Your task to perform on an android device: Go to accessibility settings Image 0: 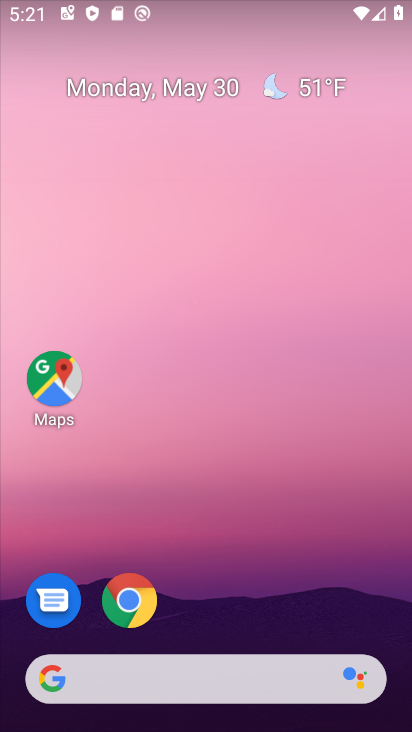
Step 0: drag from (223, 398) to (189, 65)
Your task to perform on an android device: Go to accessibility settings Image 1: 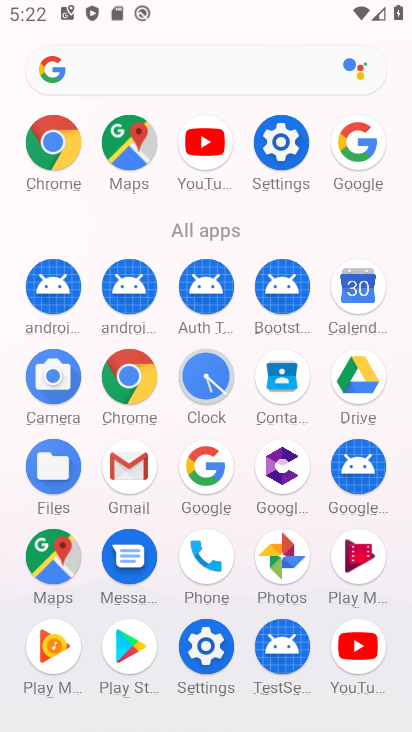
Step 1: click (273, 129)
Your task to perform on an android device: Go to accessibility settings Image 2: 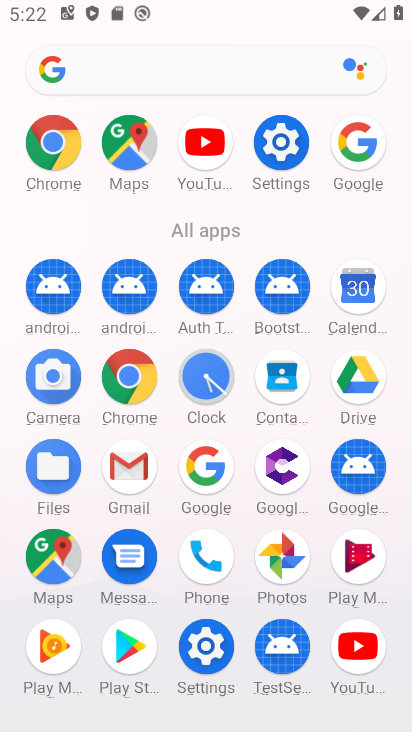
Step 2: click (274, 129)
Your task to perform on an android device: Go to accessibility settings Image 3: 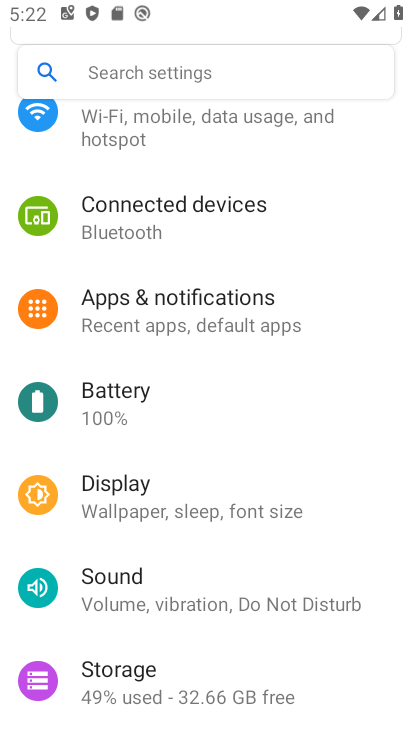
Step 3: drag from (168, 576) to (111, 81)
Your task to perform on an android device: Go to accessibility settings Image 4: 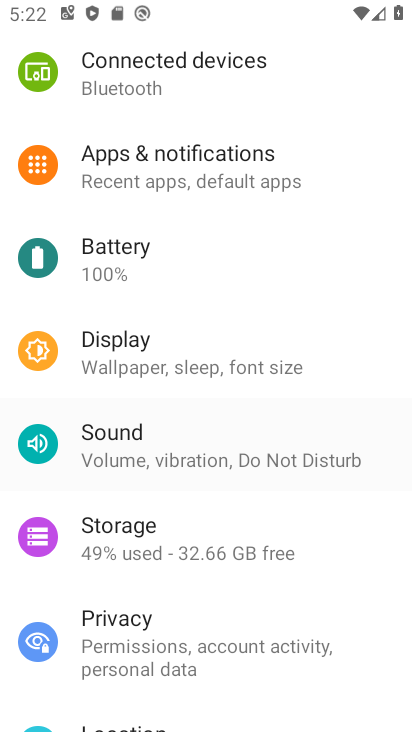
Step 4: drag from (217, 114) to (221, 41)
Your task to perform on an android device: Go to accessibility settings Image 5: 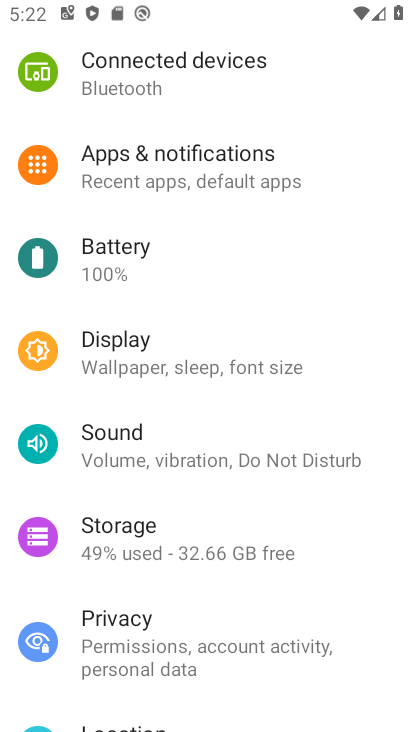
Step 5: drag from (243, 441) to (173, 97)
Your task to perform on an android device: Go to accessibility settings Image 6: 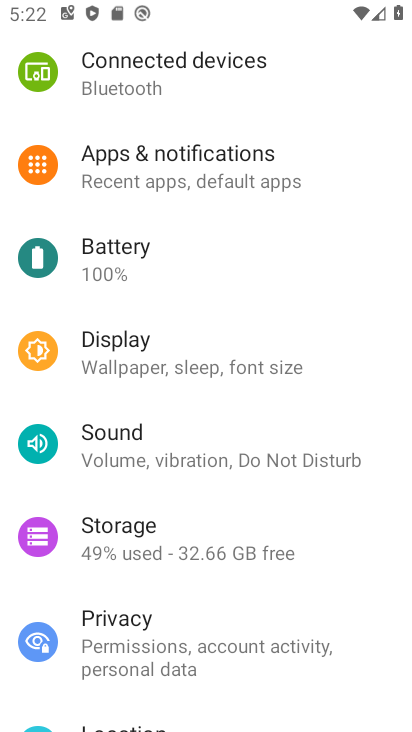
Step 6: drag from (194, 353) to (90, 60)
Your task to perform on an android device: Go to accessibility settings Image 7: 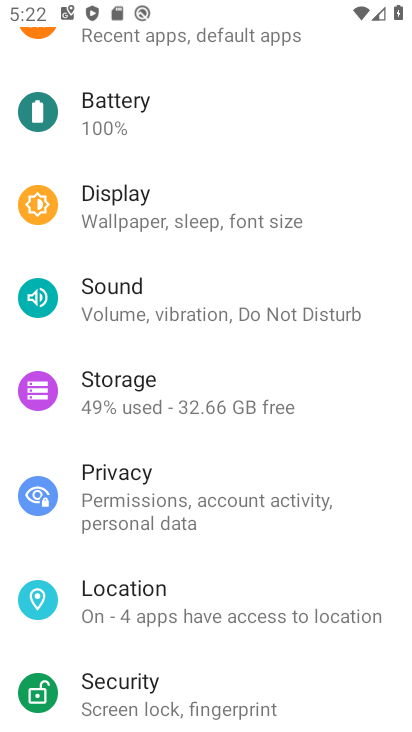
Step 7: drag from (185, 477) to (91, 138)
Your task to perform on an android device: Go to accessibility settings Image 8: 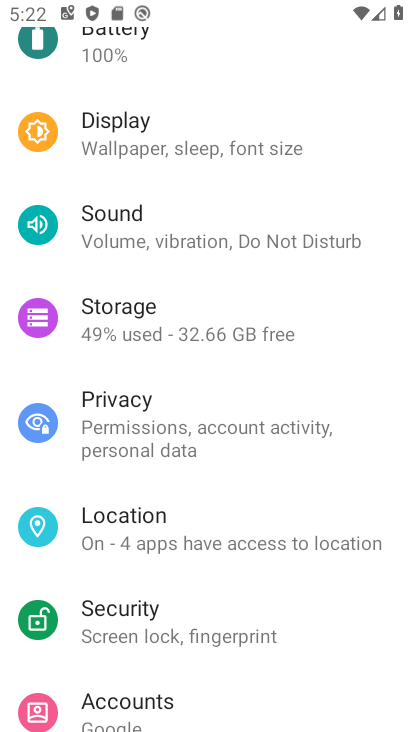
Step 8: drag from (226, 435) to (152, 49)
Your task to perform on an android device: Go to accessibility settings Image 9: 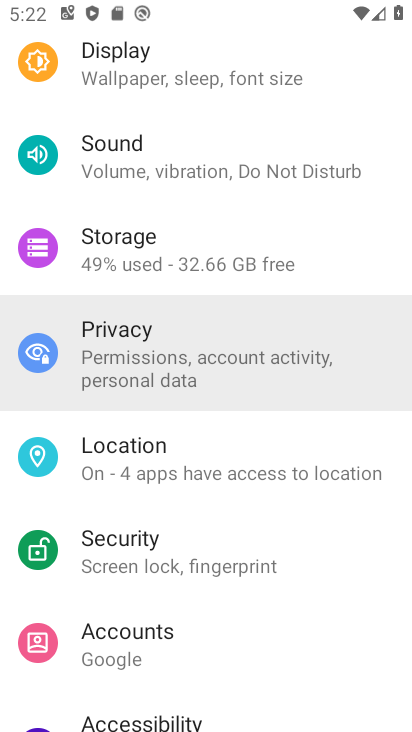
Step 9: drag from (149, 504) to (124, 123)
Your task to perform on an android device: Go to accessibility settings Image 10: 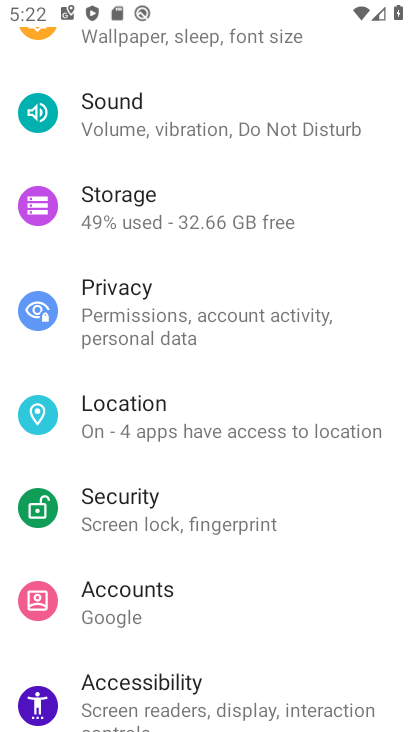
Step 10: drag from (152, 300) to (152, 89)
Your task to perform on an android device: Go to accessibility settings Image 11: 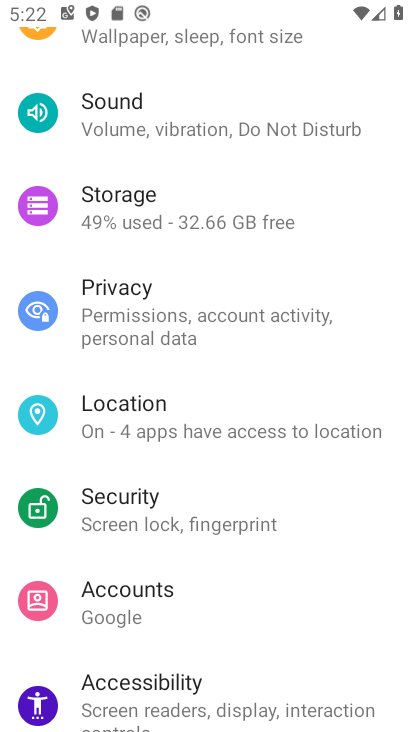
Step 11: click (182, 234)
Your task to perform on an android device: Go to accessibility settings Image 12: 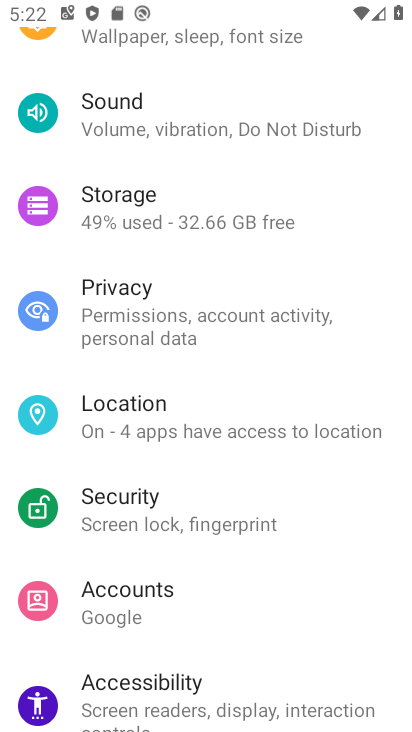
Step 12: drag from (166, 483) to (154, 175)
Your task to perform on an android device: Go to accessibility settings Image 13: 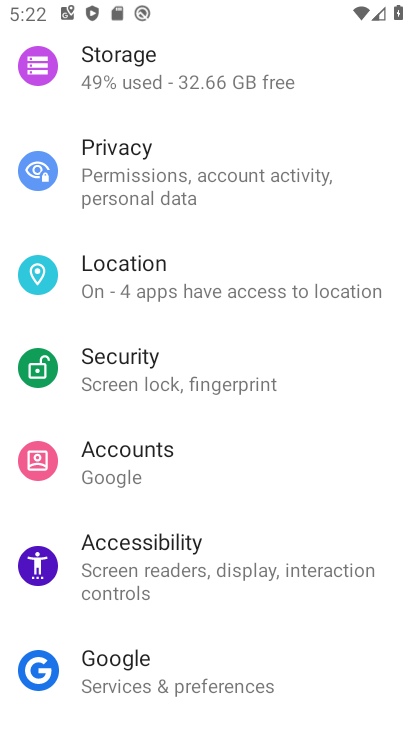
Step 13: click (153, 683)
Your task to perform on an android device: Go to accessibility settings Image 14: 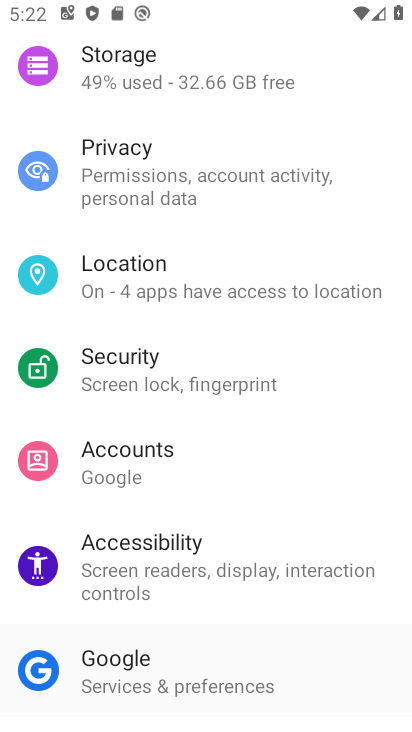
Step 14: click (127, 564)
Your task to perform on an android device: Go to accessibility settings Image 15: 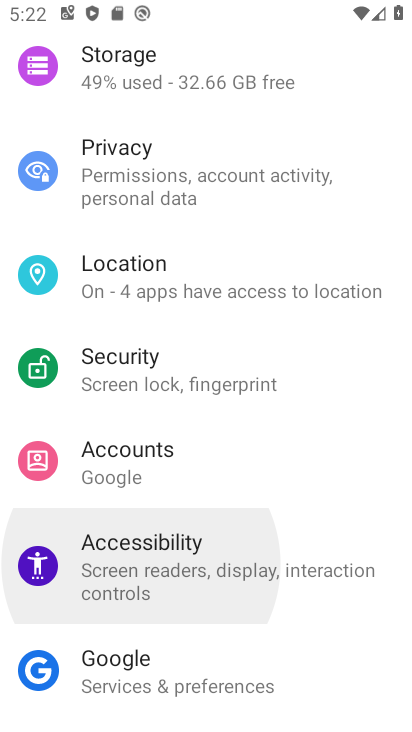
Step 15: click (126, 564)
Your task to perform on an android device: Go to accessibility settings Image 16: 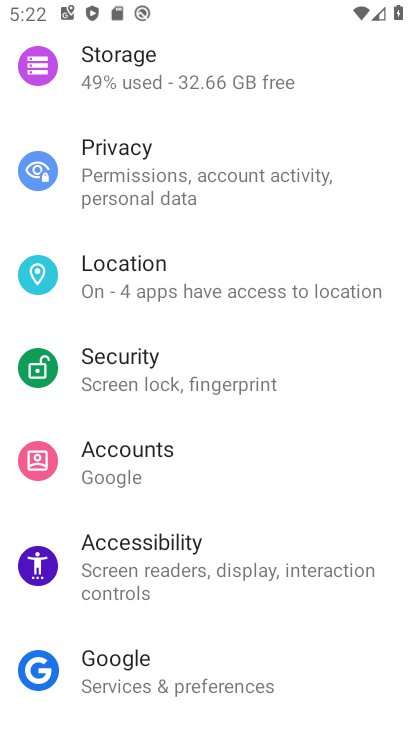
Step 16: click (125, 567)
Your task to perform on an android device: Go to accessibility settings Image 17: 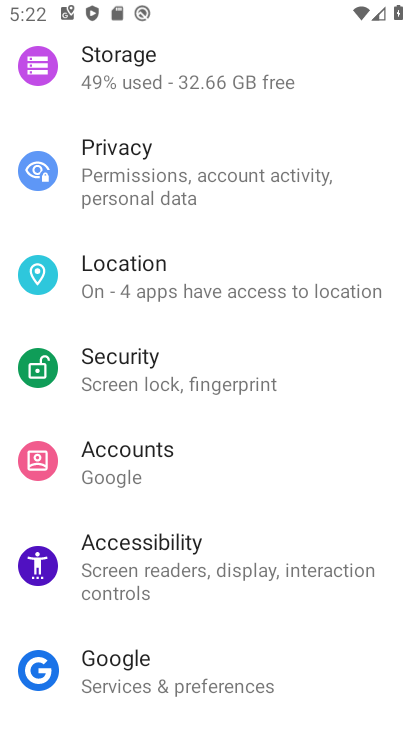
Step 17: click (122, 567)
Your task to perform on an android device: Go to accessibility settings Image 18: 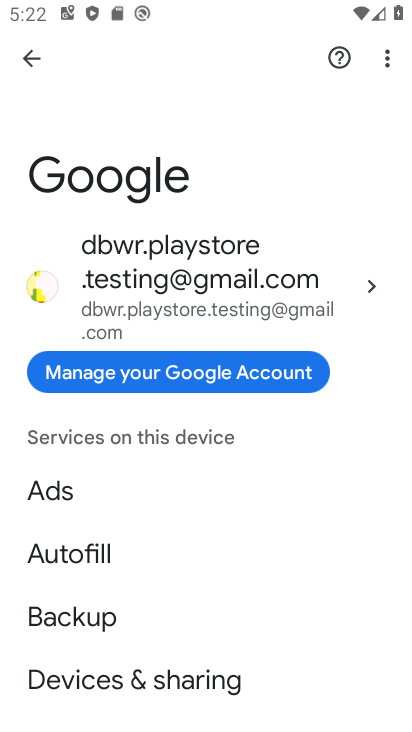
Step 18: drag from (158, 564) to (107, 223)
Your task to perform on an android device: Go to accessibility settings Image 19: 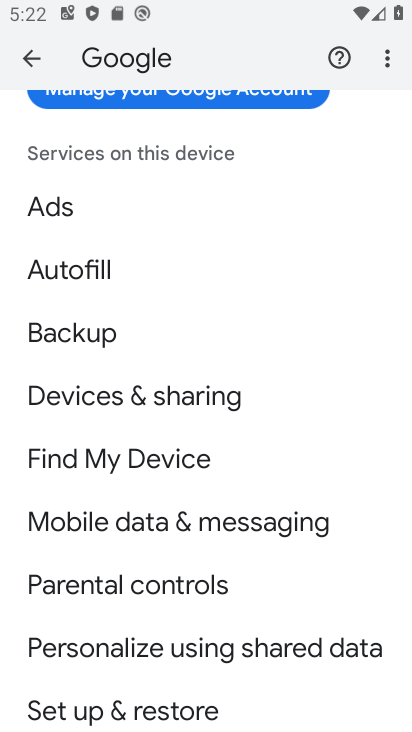
Step 19: drag from (114, 535) to (112, 233)
Your task to perform on an android device: Go to accessibility settings Image 20: 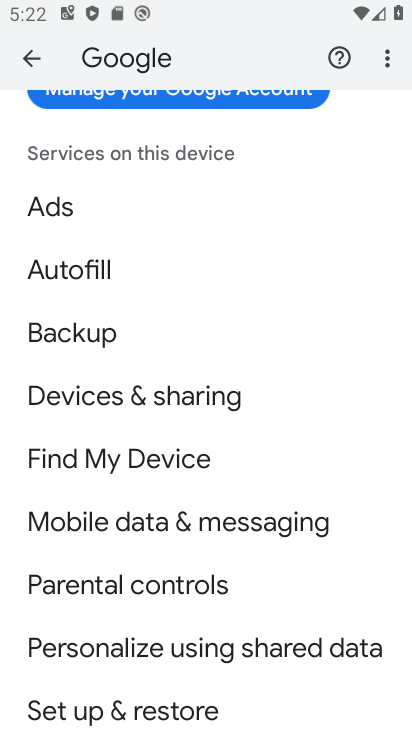
Step 20: drag from (156, 477) to (166, 171)
Your task to perform on an android device: Go to accessibility settings Image 21: 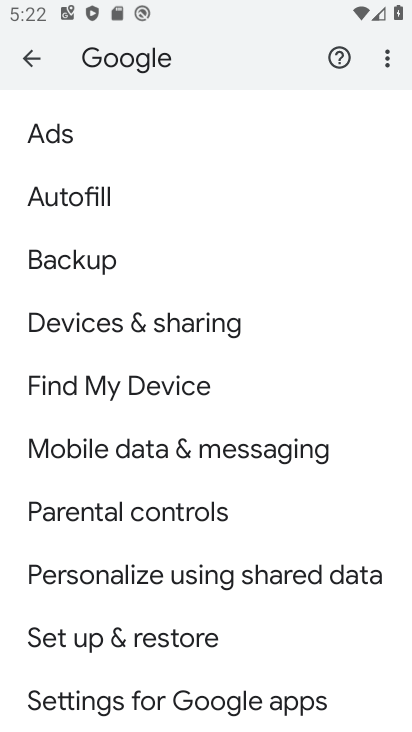
Step 21: drag from (176, 305) to (168, 707)
Your task to perform on an android device: Go to accessibility settings Image 22: 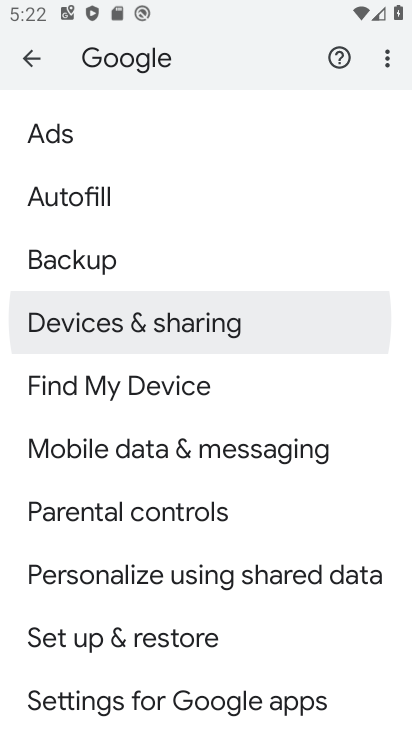
Step 22: drag from (118, 420) to (158, 600)
Your task to perform on an android device: Go to accessibility settings Image 23: 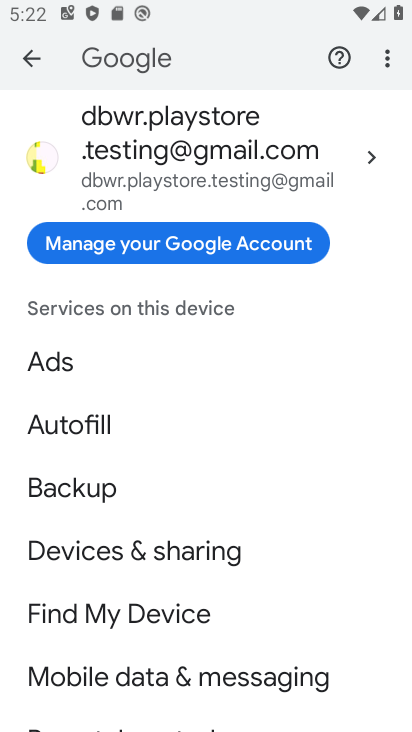
Step 23: drag from (163, 326) to (192, 512)
Your task to perform on an android device: Go to accessibility settings Image 24: 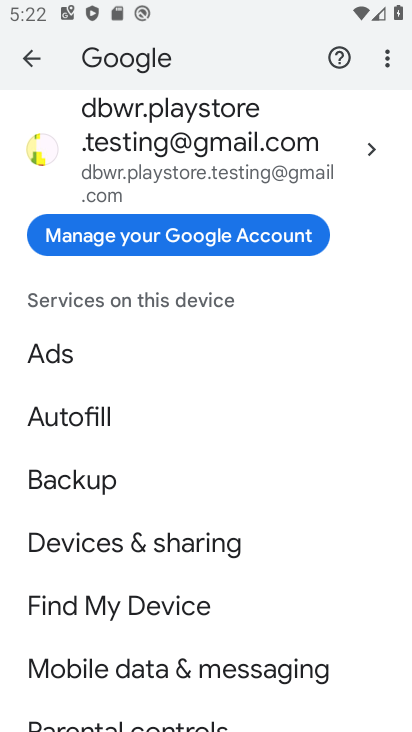
Step 24: drag from (209, 465) to (213, 503)
Your task to perform on an android device: Go to accessibility settings Image 25: 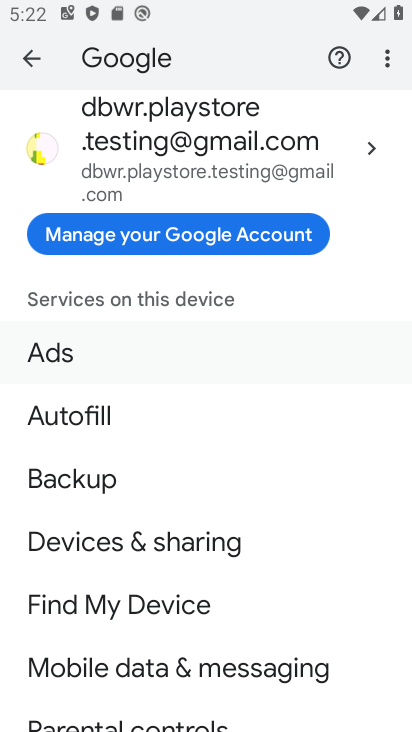
Step 25: drag from (135, 341) to (138, 428)
Your task to perform on an android device: Go to accessibility settings Image 26: 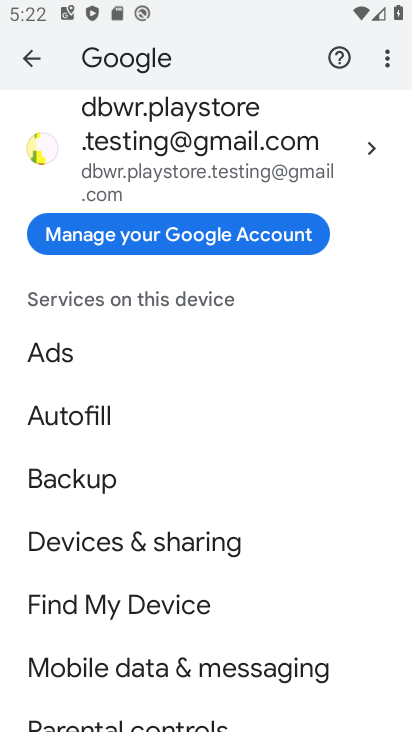
Step 26: click (39, 48)
Your task to perform on an android device: Go to accessibility settings Image 27: 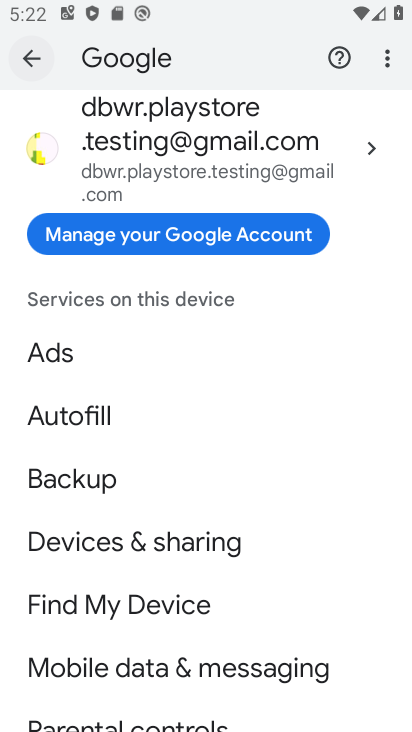
Step 27: click (30, 54)
Your task to perform on an android device: Go to accessibility settings Image 28: 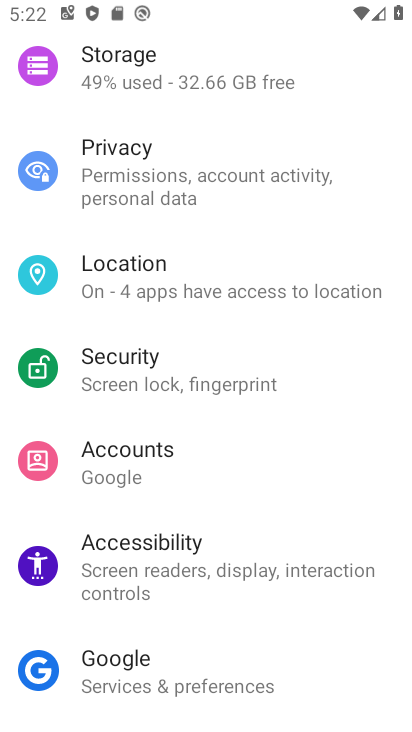
Step 28: click (157, 570)
Your task to perform on an android device: Go to accessibility settings Image 29: 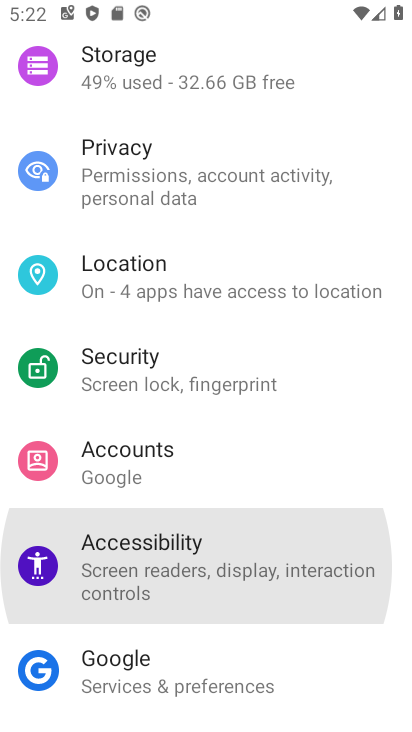
Step 29: click (155, 570)
Your task to perform on an android device: Go to accessibility settings Image 30: 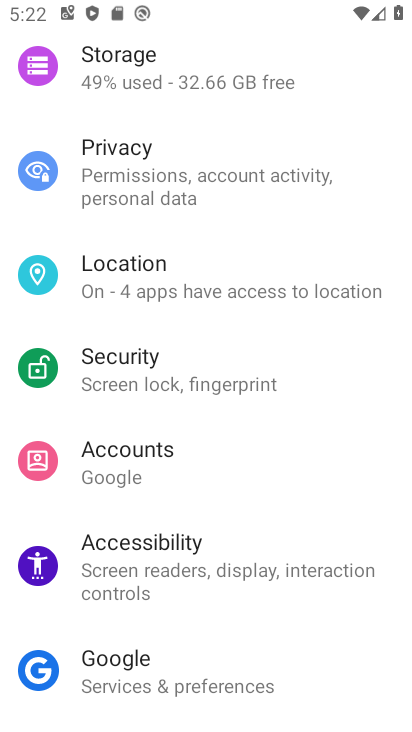
Step 30: click (155, 570)
Your task to perform on an android device: Go to accessibility settings Image 31: 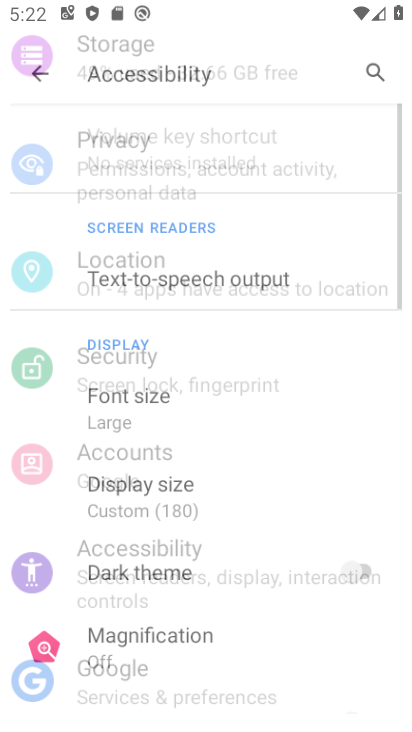
Step 31: click (155, 570)
Your task to perform on an android device: Go to accessibility settings Image 32: 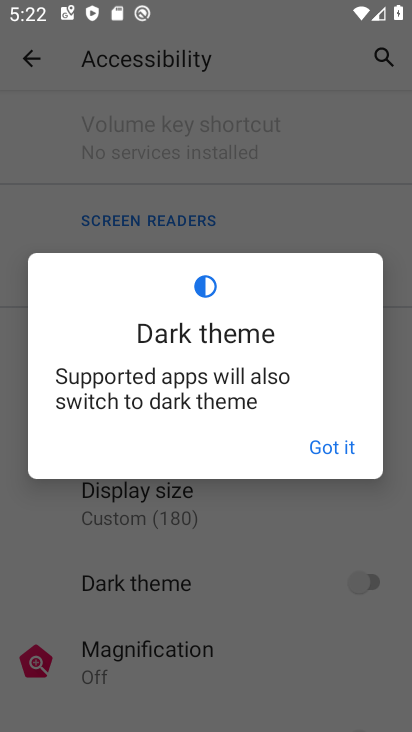
Step 32: click (321, 450)
Your task to perform on an android device: Go to accessibility settings Image 33: 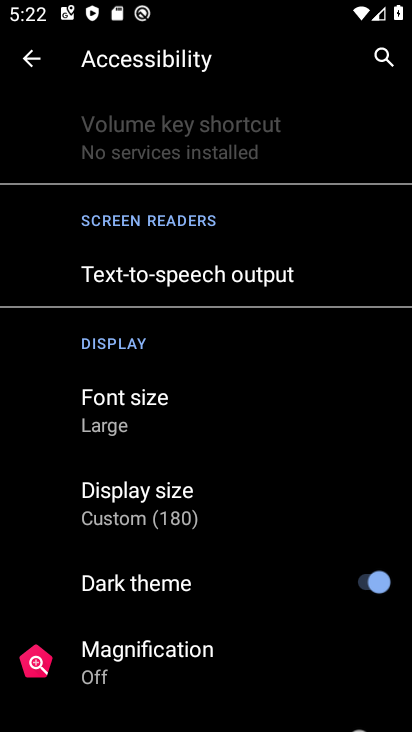
Step 33: click (369, 579)
Your task to perform on an android device: Go to accessibility settings Image 34: 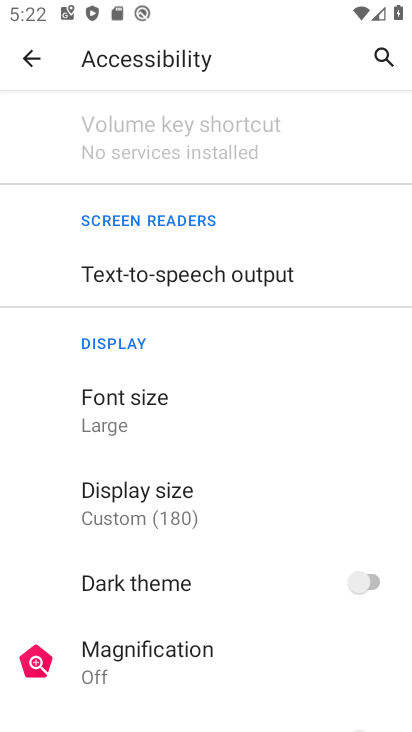
Step 34: task complete